Your task to perform on an android device: Open Google Chrome and click the shortcut for Amazon.com Image 0: 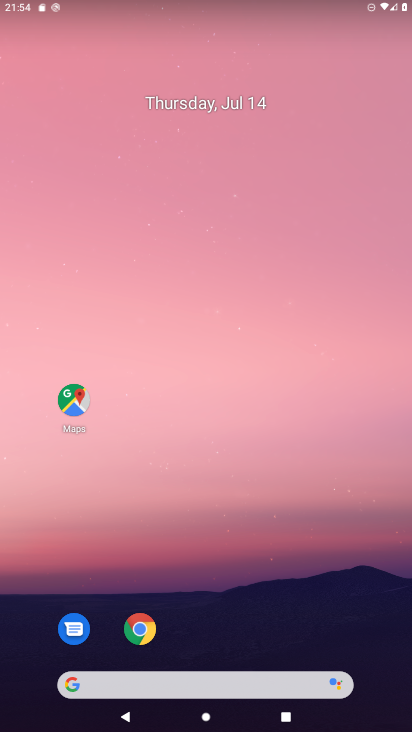
Step 0: drag from (259, 613) to (264, 228)
Your task to perform on an android device: Open Google Chrome and click the shortcut for Amazon.com Image 1: 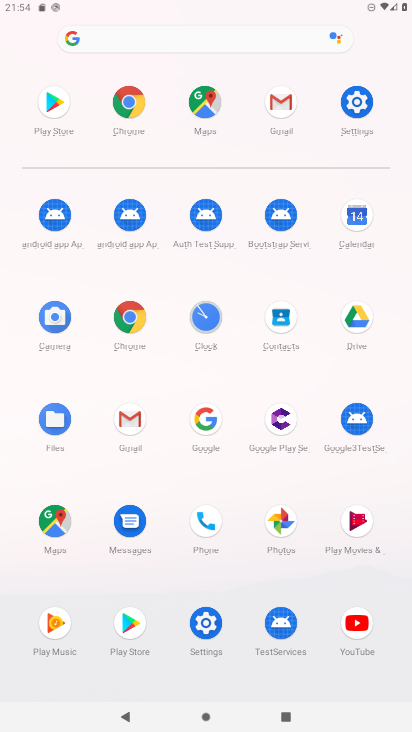
Step 1: click (119, 311)
Your task to perform on an android device: Open Google Chrome and click the shortcut for Amazon.com Image 2: 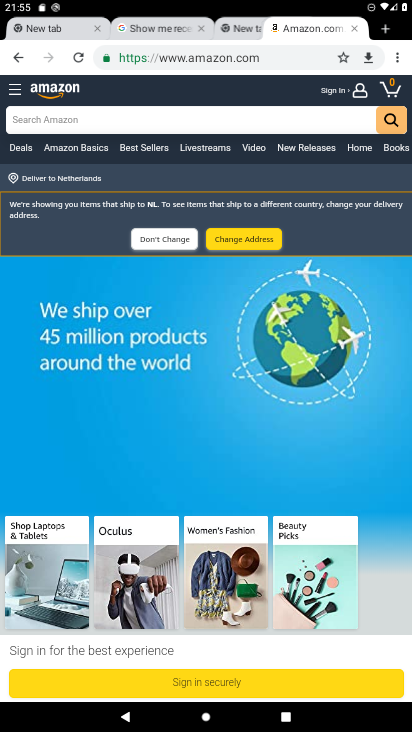
Step 2: task complete